Your task to perform on an android device: turn smart compose on in the gmail app Image 0: 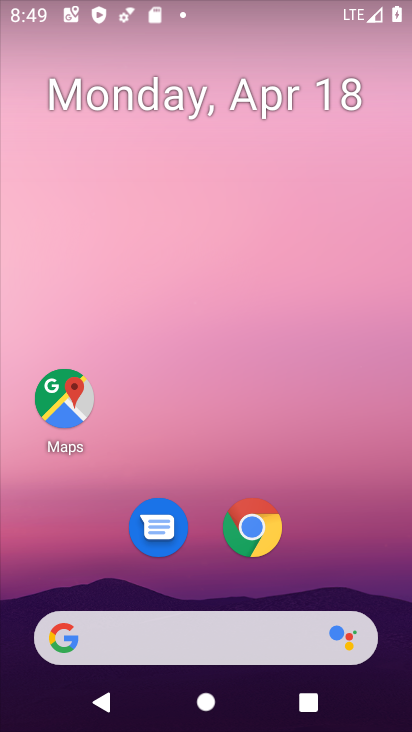
Step 0: drag from (316, 56) to (344, 9)
Your task to perform on an android device: turn smart compose on in the gmail app Image 1: 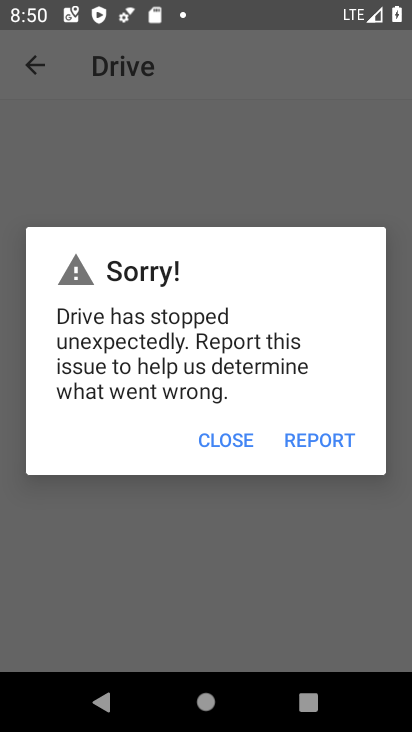
Step 1: press home button
Your task to perform on an android device: turn smart compose on in the gmail app Image 2: 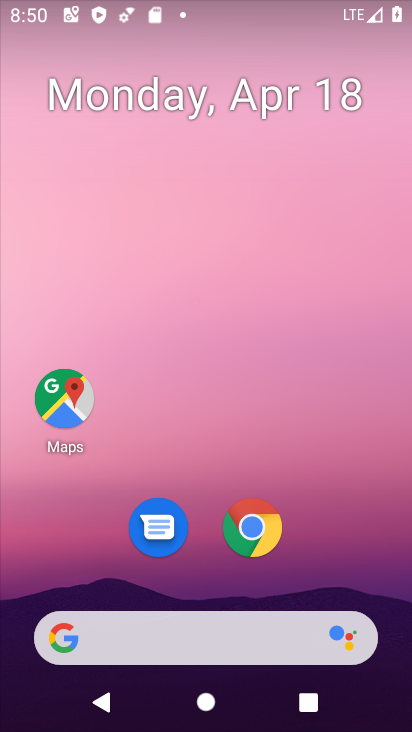
Step 2: drag from (374, 565) to (304, 61)
Your task to perform on an android device: turn smart compose on in the gmail app Image 3: 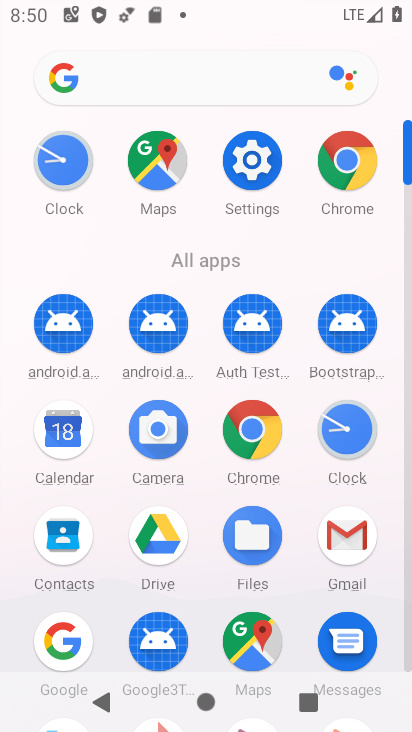
Step 3: click (344, 536)
Your task to perform on an android device: turn smart compose on in the gmail app Image 4: 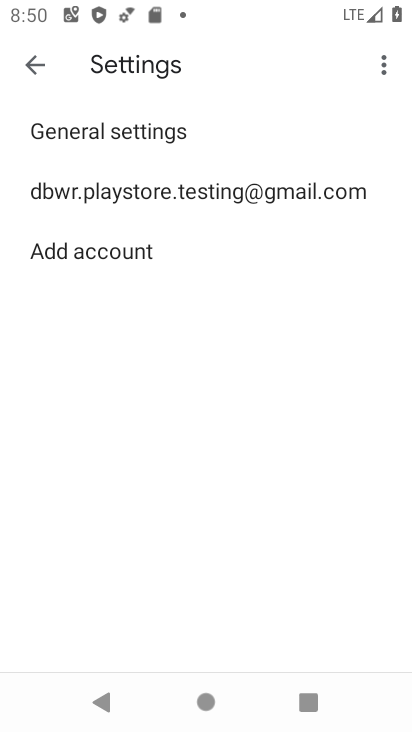
Step 4: click (96, 188)
Your task to perform on an android device: turn smart compose on in the gmail app Image 5: 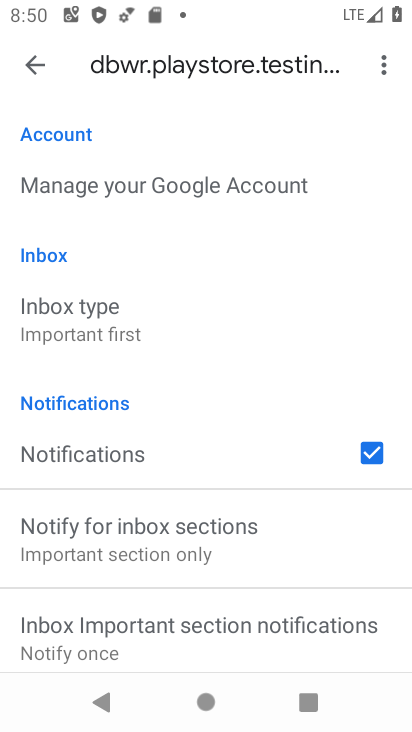
Step 5: drag from (218, 543) to (223, 169)
Your task to perform on an android device: turn smart compose on in the gmail app Image 6: 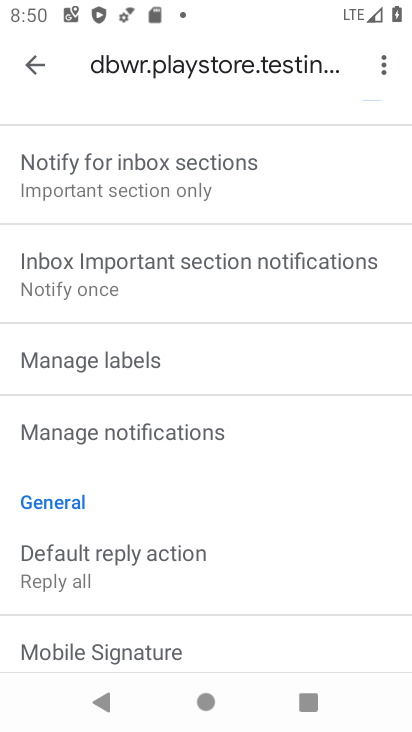
Step 6: drag from (215, 517) to (236, 170)
Your task to perform on an android device: turn smart compose on in the gmail app Image 7: 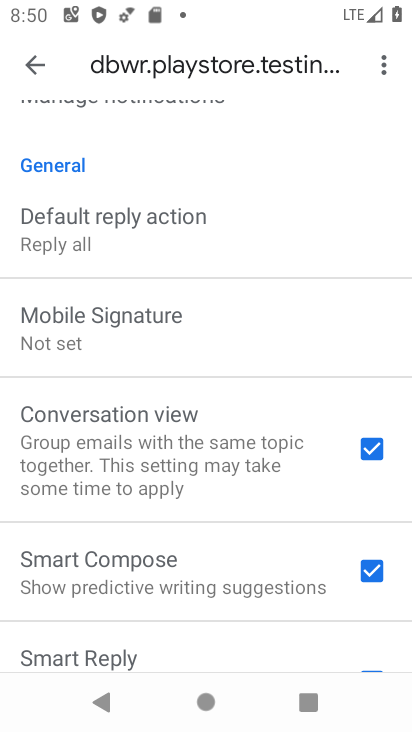
Step 7: drag from (226, 466) to (256, 145)
Your task to perform on an android device: turn smart compose on in the gmail app Image 8: 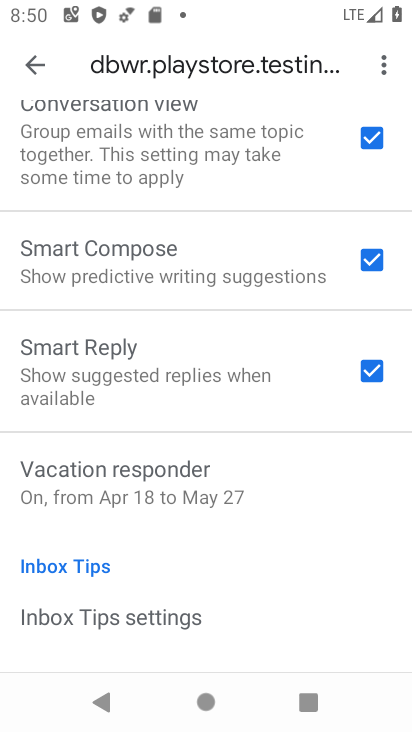
Step 8: drag from (221, 412) to (221, 139)
Your task to perform on an android device: turn smart compose on in the gmail app Image 9: 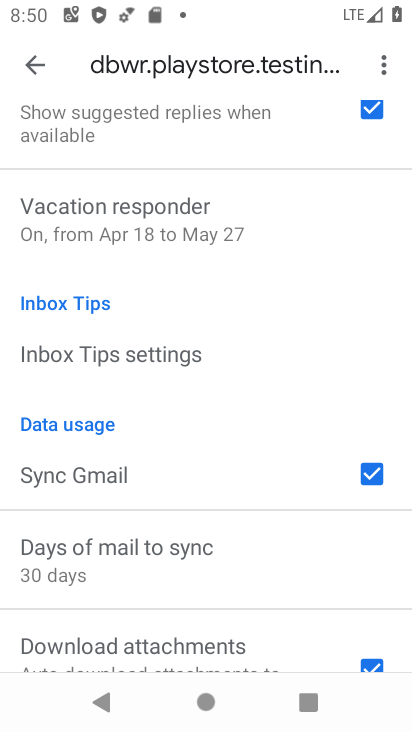
Step 9: drag from (160, 548) to (238, 132)
Your task to perform on an android device: turn smart compose on in the gmail app Image 10: 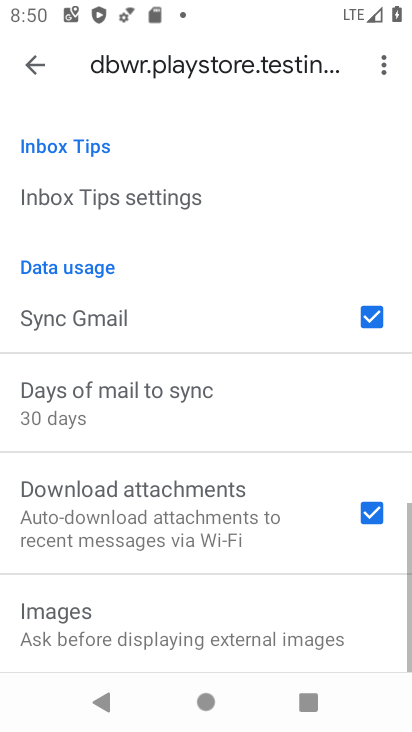
Step 10: drag from (209, 567) to (232, 212)
Your task to perform on an android device: turn smart compose on in the gmail app Image 11: 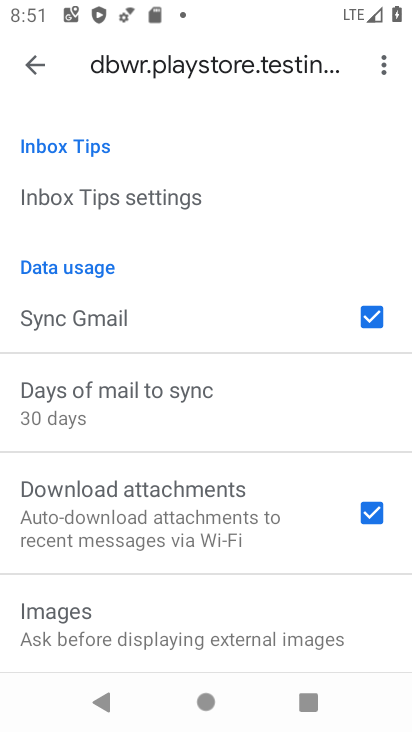
Step 11: drag from (232, 195) to (217, 572)
Your task to perform on an android device: turn smart compose on in the gmail app Image 12: 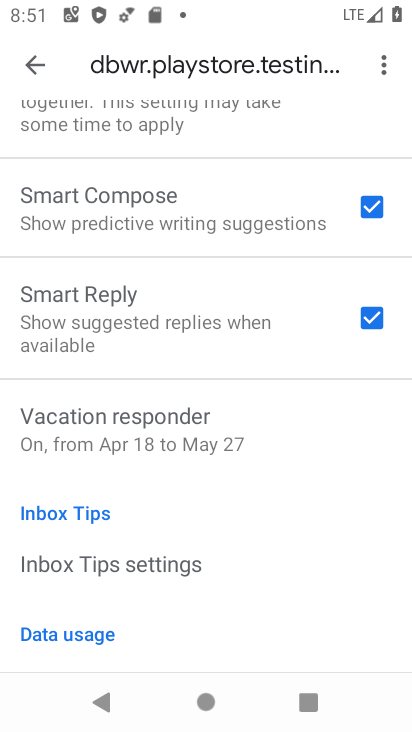
Step 12: click (375, 201)
Your task to perform on an android device: turn smart compose on in the gmail app Image 13: 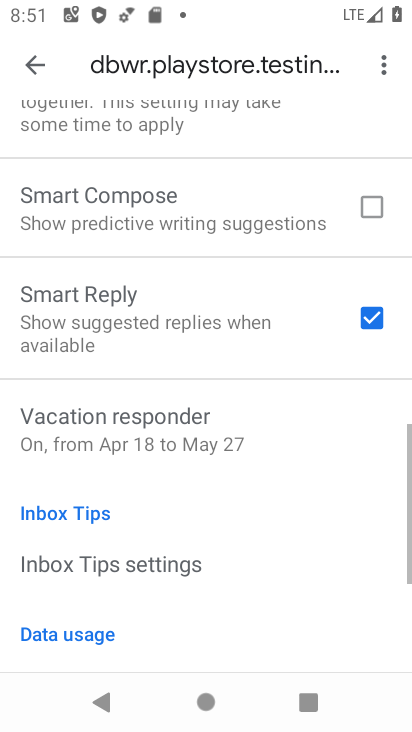
Step 13: click (375, 201)
Your task to perform on an android device: turn smart compose on in the gmail app Image 14: 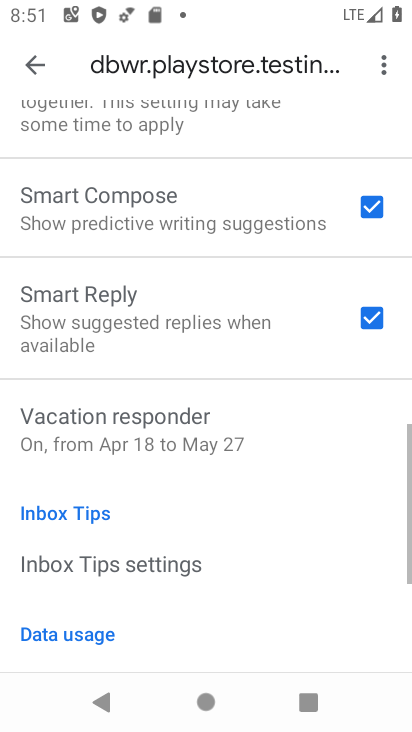
Step 14: task complete